Your task to perform on an android device: Go to sound settings Image 0: 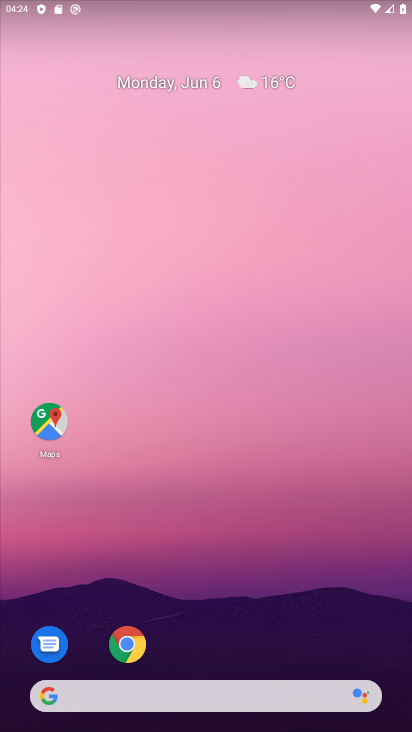
Step 0: drag from (394, 688) to (309, 138)
Your task to perform on an android device: Go to sound settings Image 1: 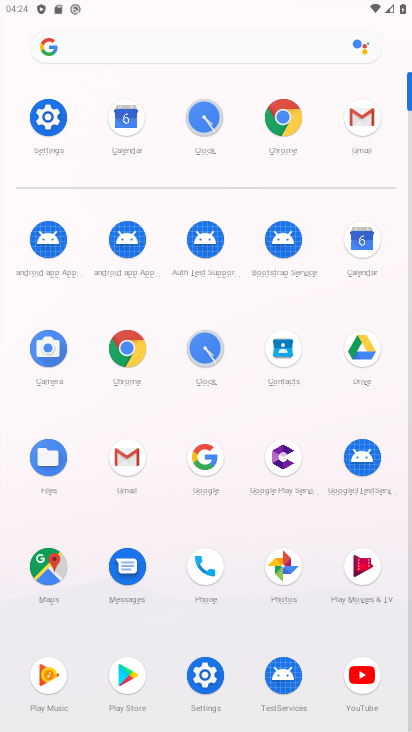
Step 1: click (35, 123)
Your task to perform on an android device: Go to sound settings Image 2: 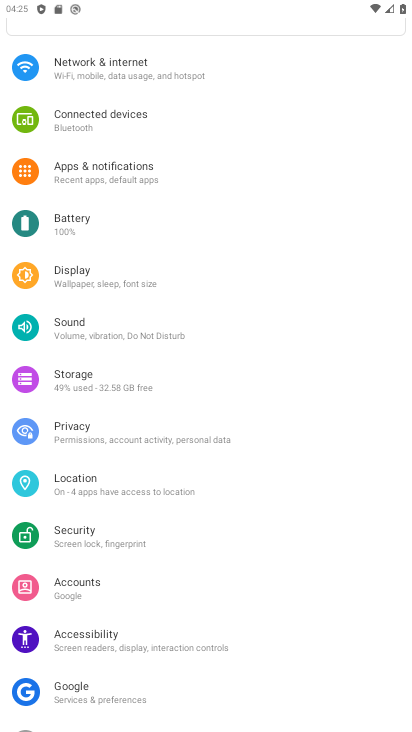
Step 2: click (82, 330)
Your task to perform on an android device: Go to sound settings Image 3: 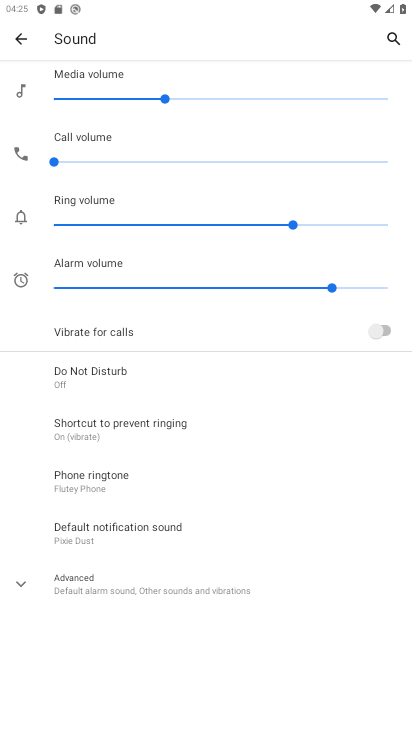
Step 3: task complete